Your task to perform on an android device: visit the assistant section in the google photos Image 0: 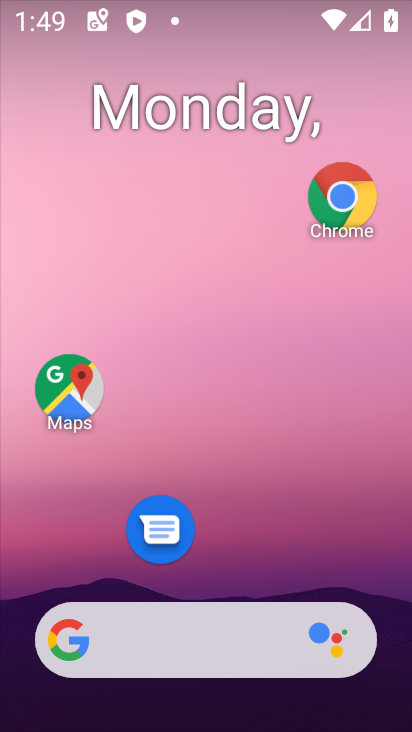
Step 0: drag from (197, 589) to (163, 36)
Your task to perform on an android device: visit the assistant section in the google photos Image 1: 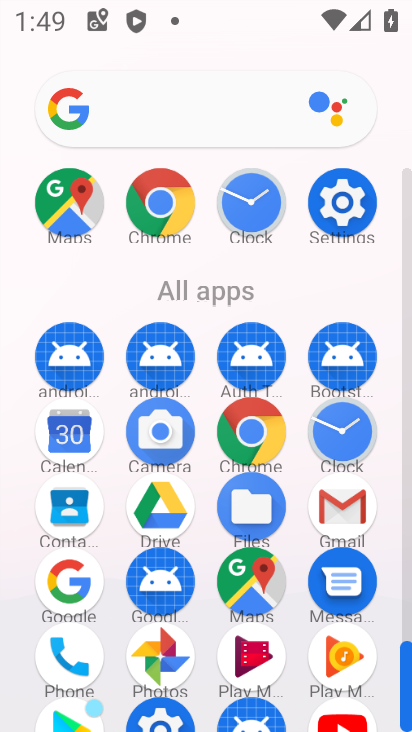
Step 1: click (163, 648)
Your task to perform on an android device: visit the assistant section in the google photos Image 2: 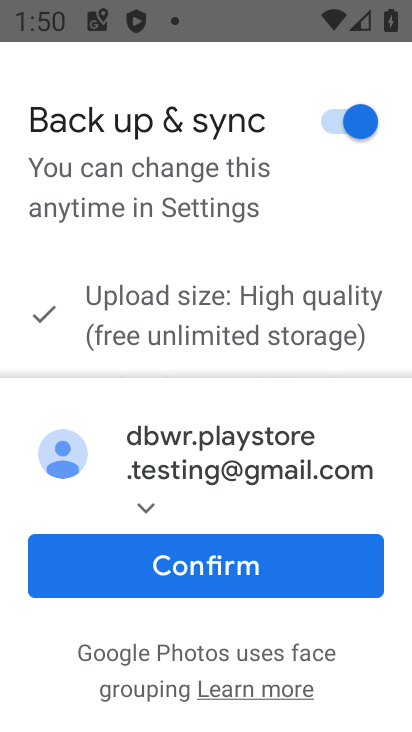
Step 2: click (217, 554)
Your task to perform on an android device: visit the assistant section in the google photos Image 3: 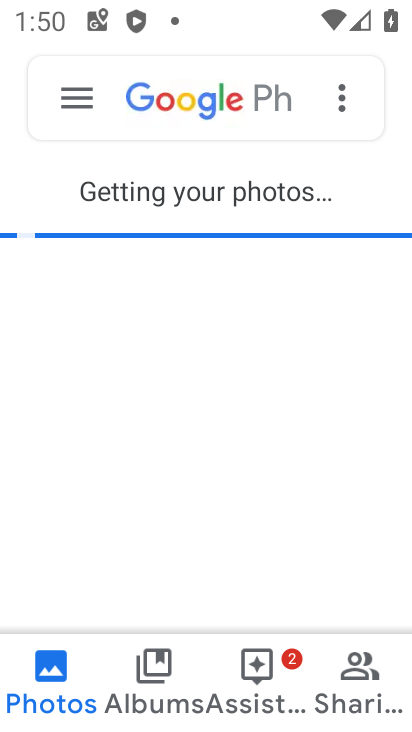
Step 3: click (241, 671)
Your task to perform on an android device: visit the assistant section in the google photos Image 4: 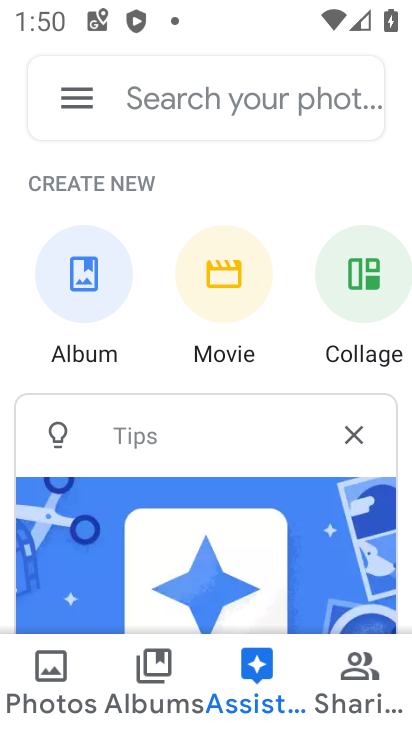
Step 4: task complete